Your task to perform on an android device: turn on notifications settings in the gmail app Image 0: 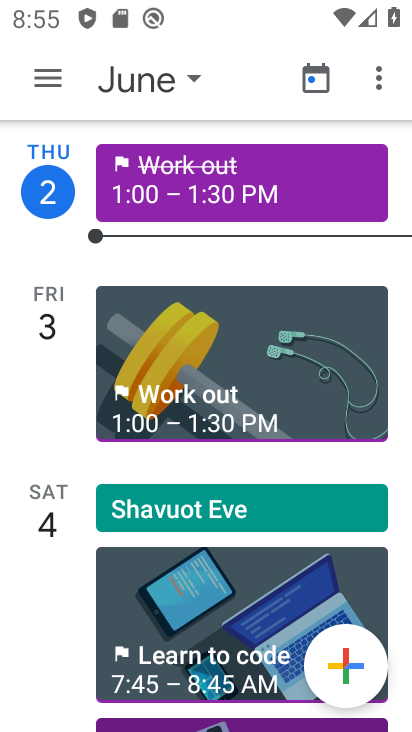
Step 0: press home button
Your task to perform on an android device: turn on notifications settings in the gmail app Image 1: 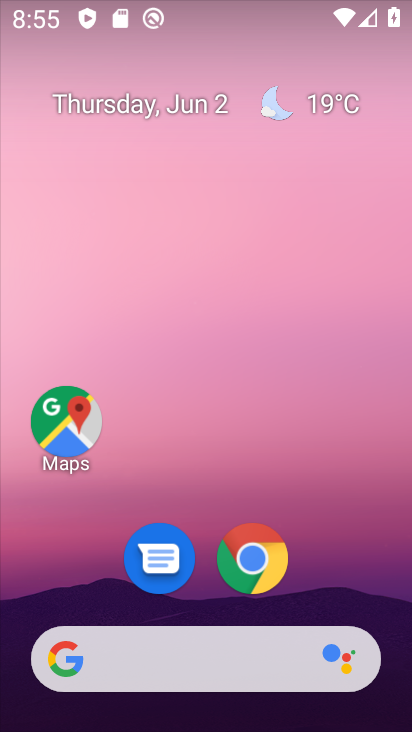
Step 1: drag from (387, 623) to (353, 65)
Your task to perform on an android device: turn on notifications settings in the gmail app Image 2: 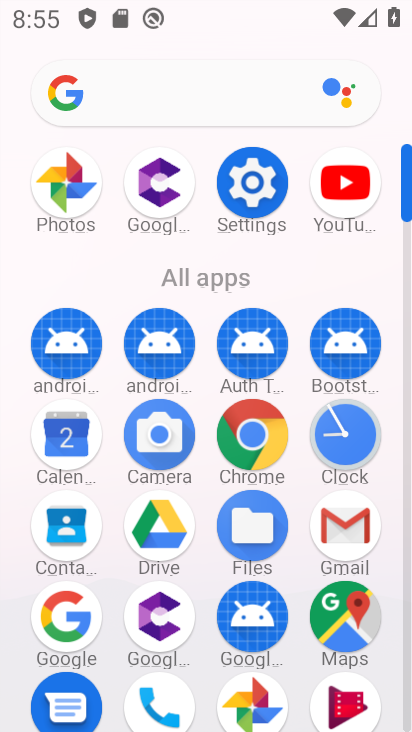
Step 2: click (407, 675)
Your task to perform on an android device: turn on notifications settings in the gmail app Image 3: 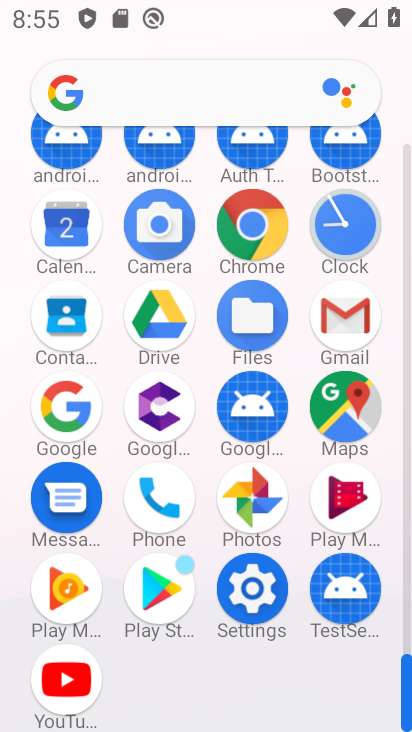
Step 3: click (344, 316)
Your task to perform on an android device: turn on notifications settings in the gmail app Image 4: 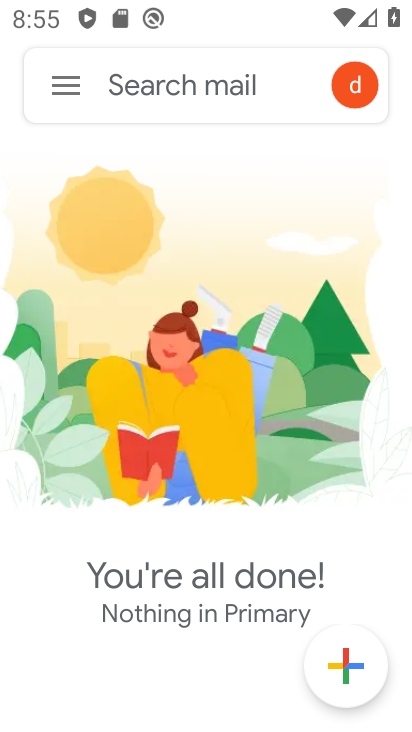
Step 4: click (61, 88)
Your task to perform on an android device: turn on notifications settings in the gmail app Image 5: 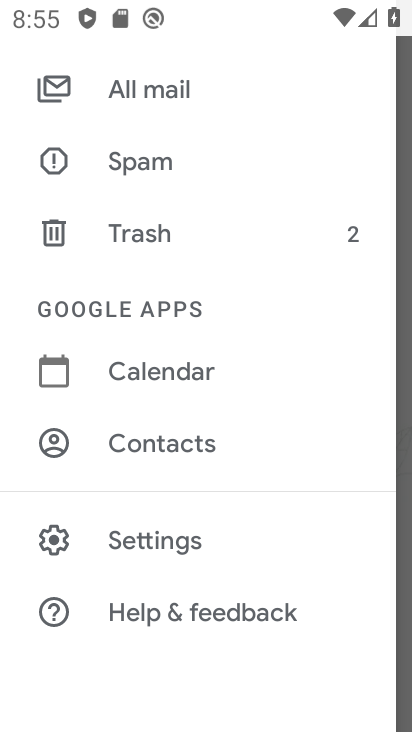
Step 5: click (138, 549)
Your task to perform on an android device: turn on notifications settings in the gmail app Image 6: 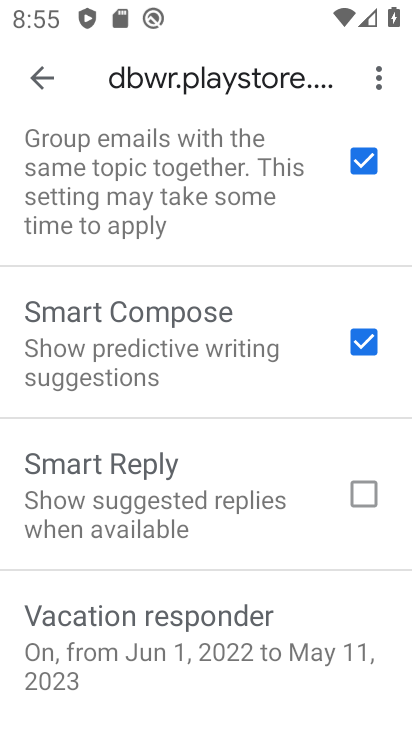
Step 6: drag from (257, 226) to (258, 625)
Your task to perform on an android device: turn on notifications settings in the gmail app Image 7: 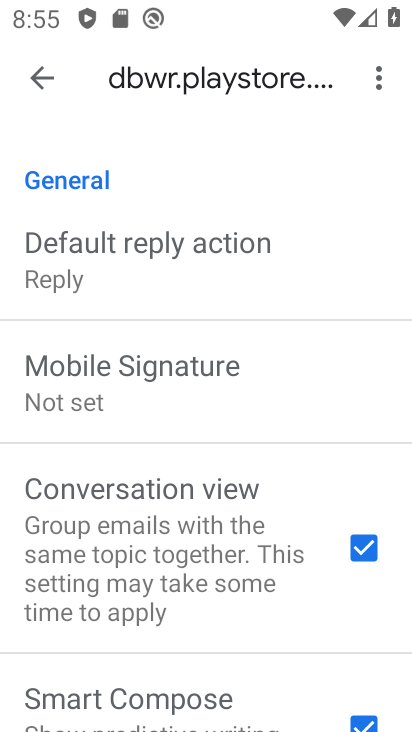
Step 7: drag from (283, 212) to (276, 618)
Your task to perform on an android device: turn on notifications settings in the gmail app Image 8: 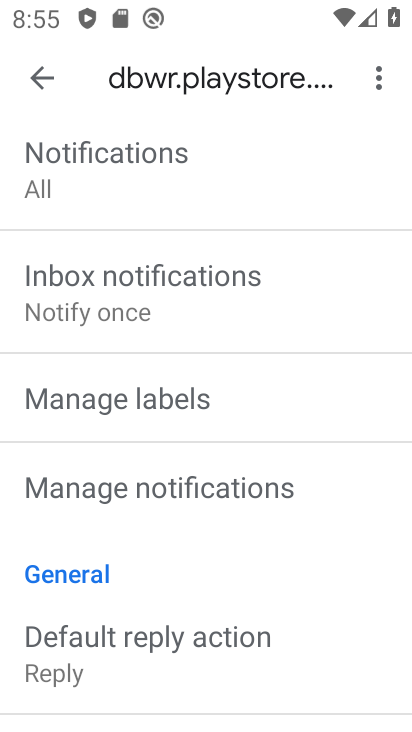
Step 8: click (139, 489)
Your task to perform on an android device: turn on notifications settings in the gmail app Image 9: 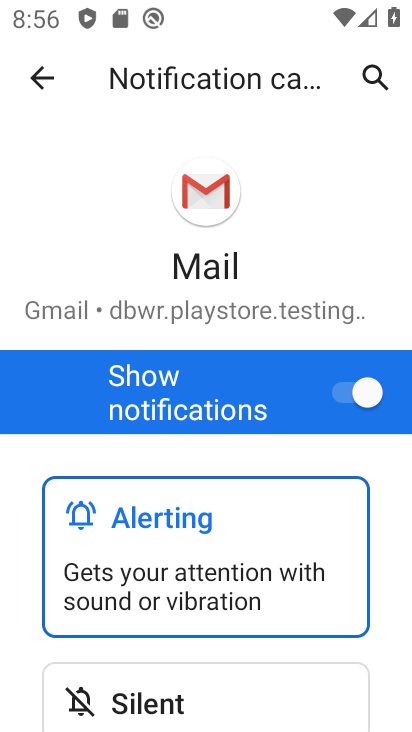
Step 9: task complete